Your task to perform on an android device: clear all cookies in the chrome app Image 0: 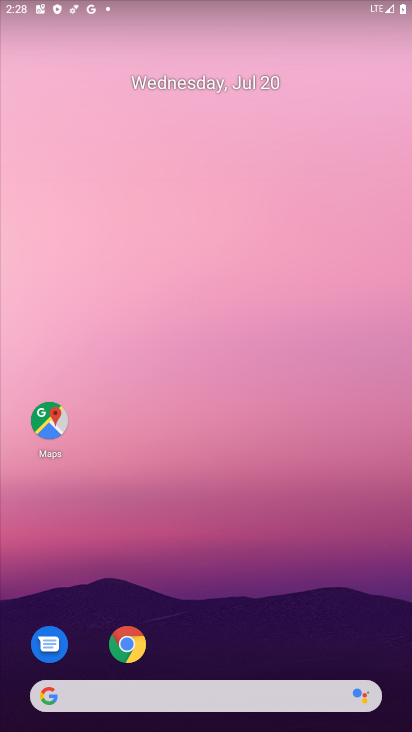
Step 0: click (126, 643)
Your task to perform on an android device: clear all cookies in the chrome app Image 1: 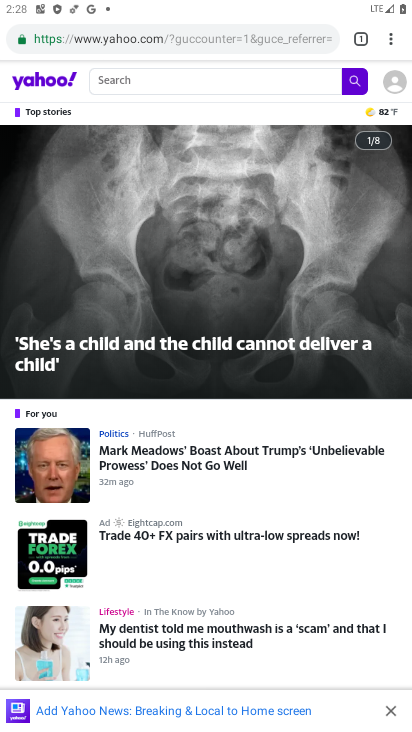
Step 1: click (389, 40)
Your task to perform on an android device: clear all cookies in the chrome app Image 2: 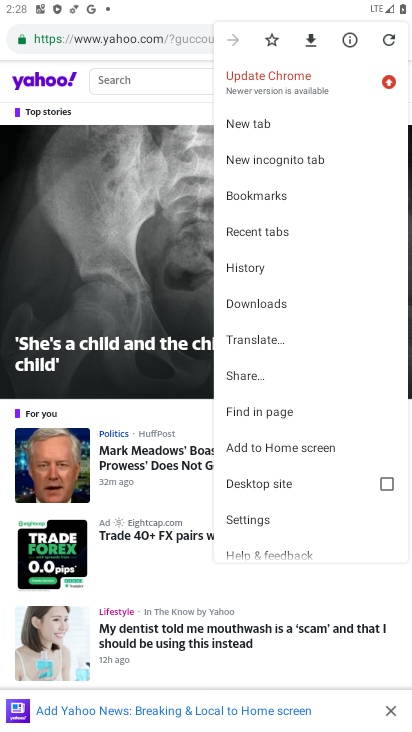
Step 2: click (254, 517)
Your task to perform on an android device: clear all cookies in the chrome app Image 3: 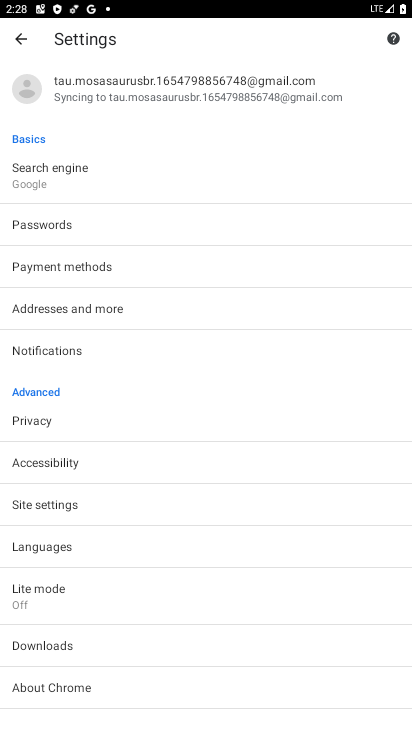
Step 3: click (36, 420)
Your task to perform on an android device: clear all cookies in the chrome app Image 4: 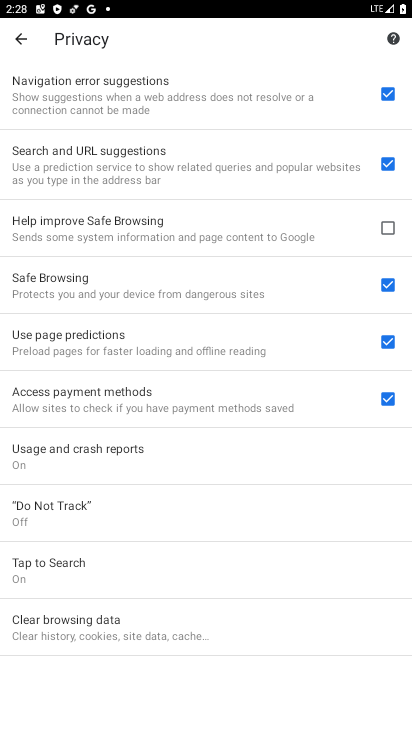
Step 4: click (66, 619)
Your task to perform on an android device: clear all cookies in the chrome app Image 5: 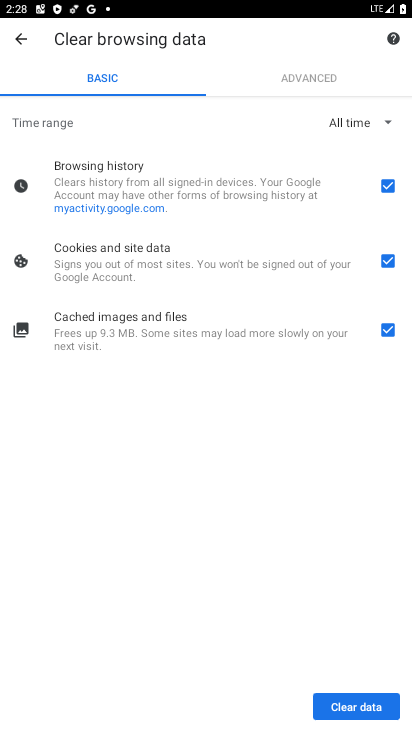
Step 5: click (389, 184)
Your task to perform on an android device: clear all cookies in the chrome app Image 6: 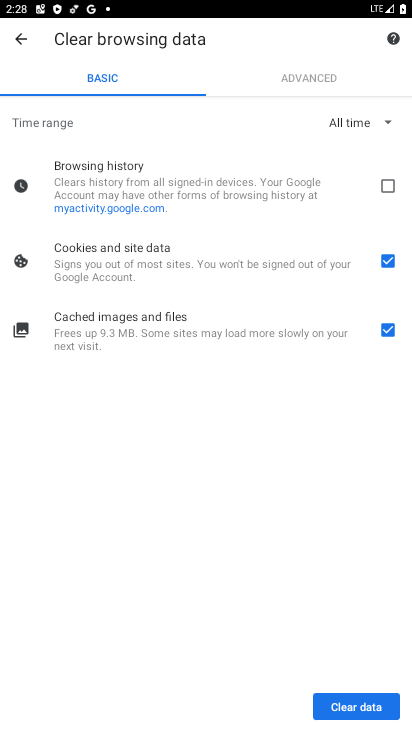
Step 6: click (391, 328)
Your task to perform on an android device: clear all cookies in the chrome app Image 7: 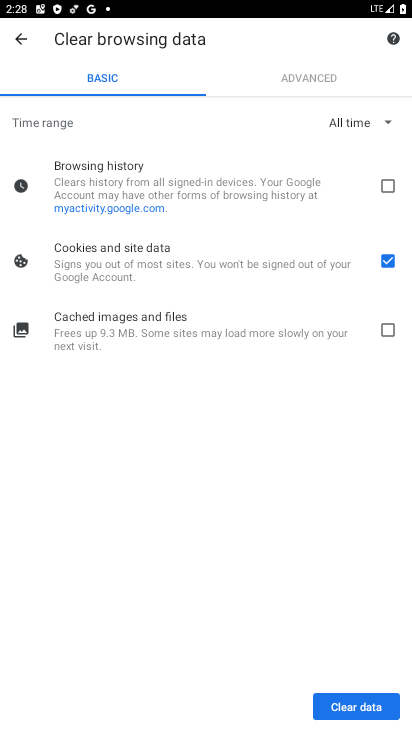
Step 7: task complete